Your task to perform on an android device: What's the weather going to be this weekend? Image 0: 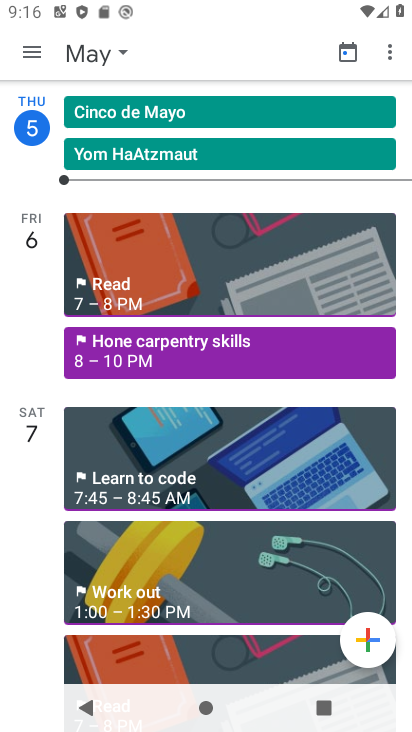
Step 0: press home button
Your task to perform on an android device: What's the weather going to be this weekend? Image 1: 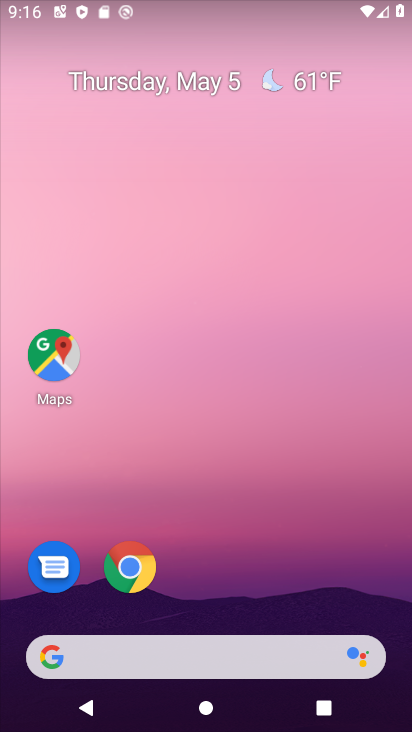
Step 1: click (235, 659)
Your task to perform on an android device: What's the weather going to be this weekend? Image 2: 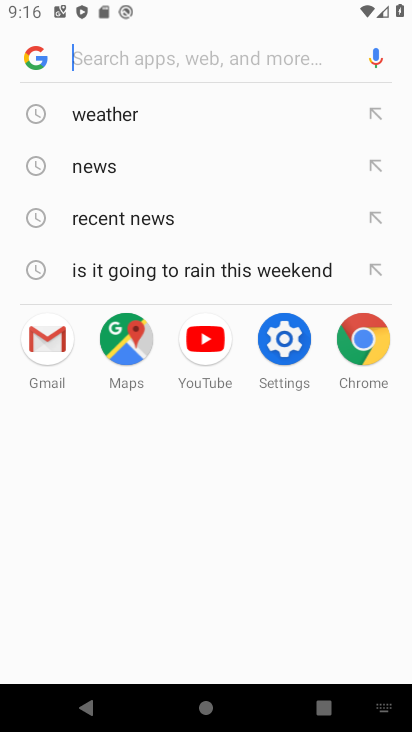
Step 2: click (127, 111)
Your task to perform on an android device: What's the weather going to be this weekend? Image 3: 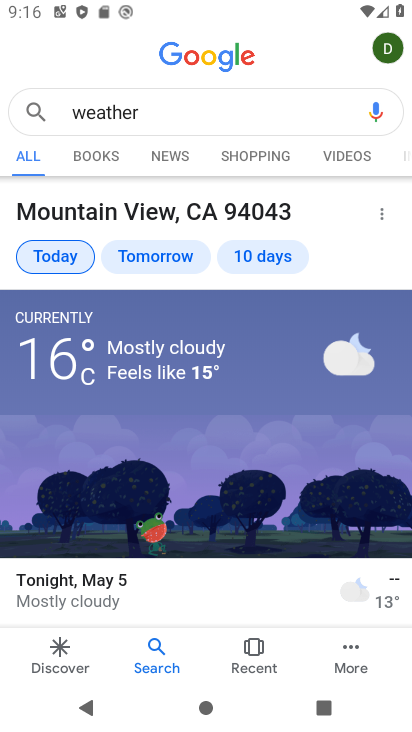
Step 3: click (157, 252)
Your task to perform on an android device: What's the weather going to be this weekend? Image 4: 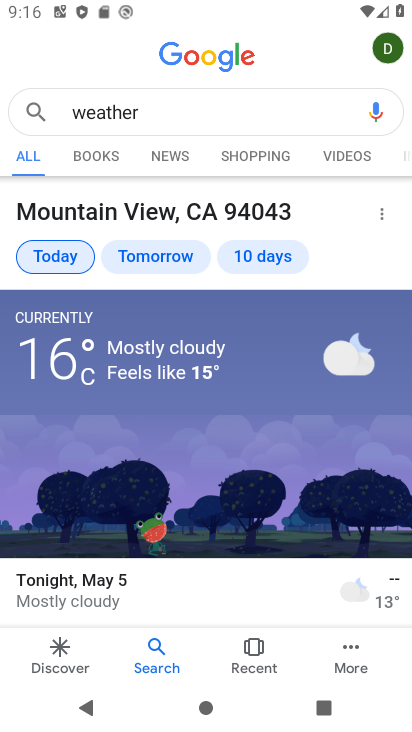
Step 4: click (157, 252)
Your task to perform on an android device: What's the weather going to be this weekend? Image 5: 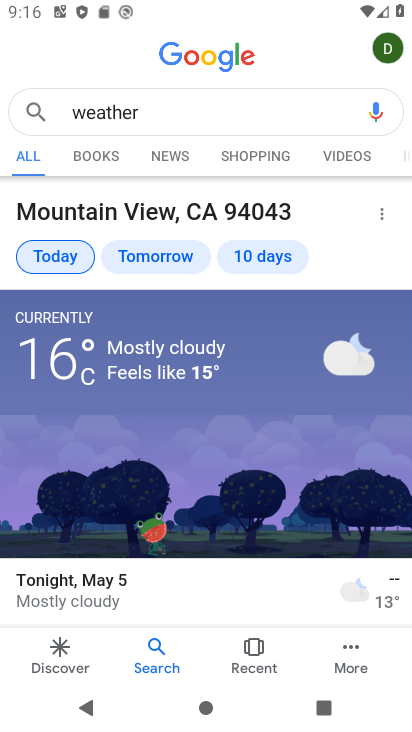
Step 5: click (157, 252)
Your task to perform on an android device: What's the weather going to be this weekend? Image 6: 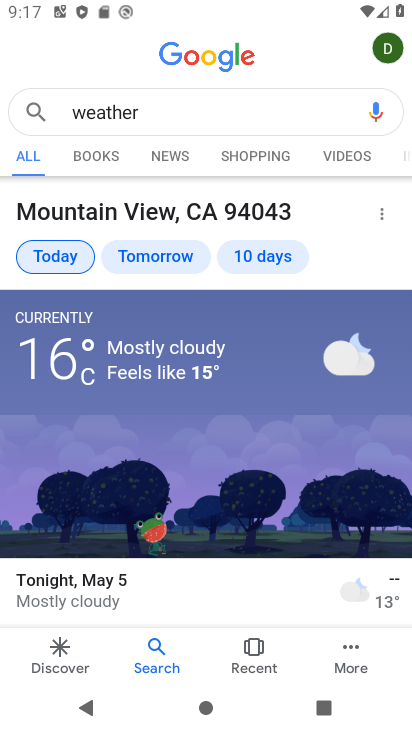
Step 6: drag from (329, 548) to (312, 378)
Your task to perform on an android device: What's the weather going to be this weekend? Image 7: 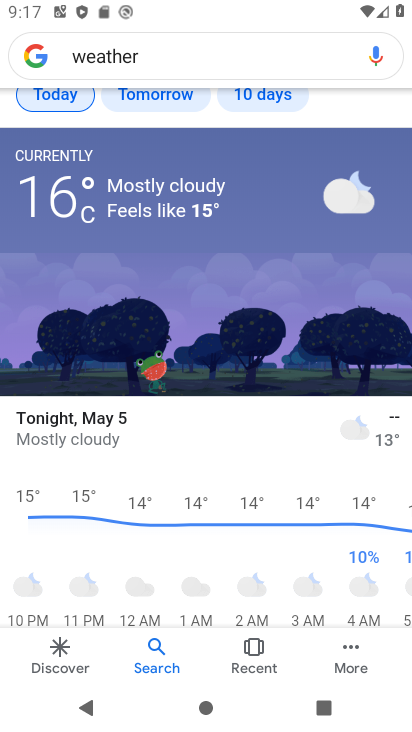
Step 7: click (166, 97)
Your task to perform on an android device: What's the weather going to be this weekend? Image 8: 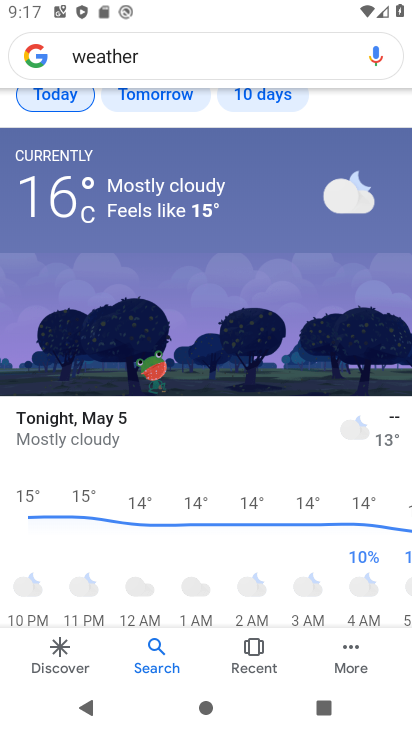
Step 8: click (166, 97)
Your task to perform on an android device: What's the weather going to be this weekend? Image 9: 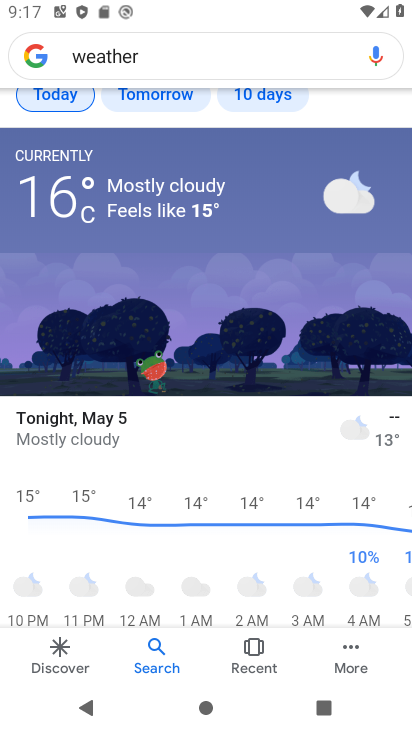
Step 9: drag from (304, 495) to (343, 248)
Your task to perform on an android device: What's the weather going to be this weekend? Image 10: 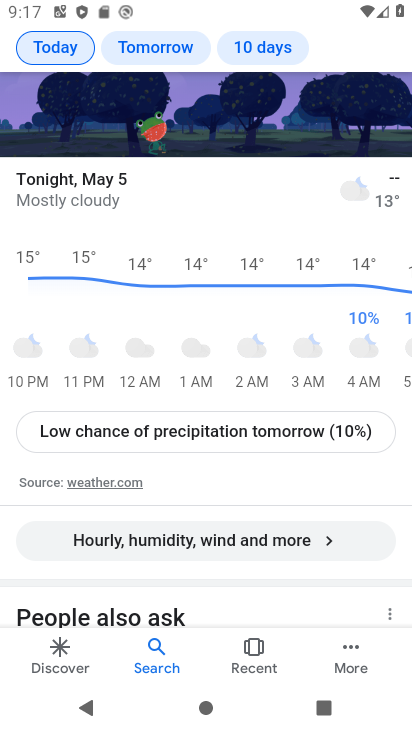
Step 10: click (302, 540)
Your task to perform on an android device: What's the weather going to be this weekend? Image 11: 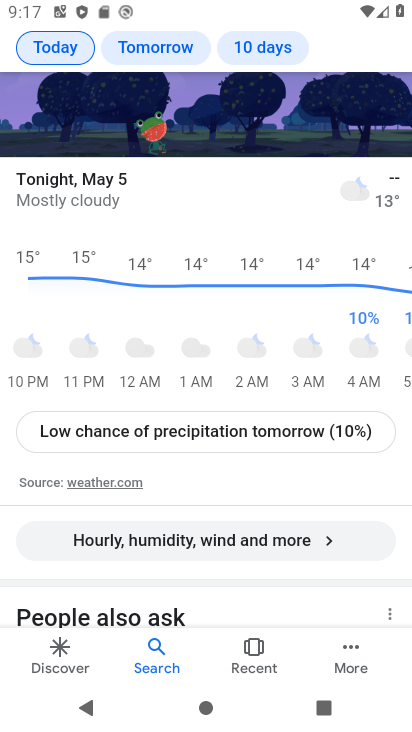
Step 11: click (303, 539)
Your task to perform on an android device: What's the weather going to be this weekend? Image 12: 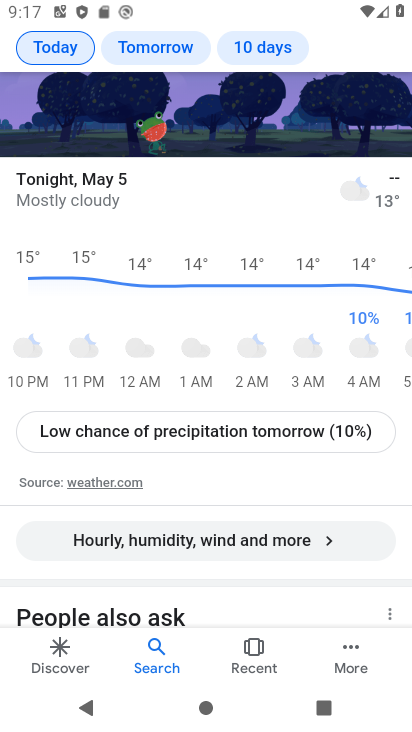
Step 12: click (303, 539)
Your task to perform on an android device: What's the weather going to be this weekend? Image 13: 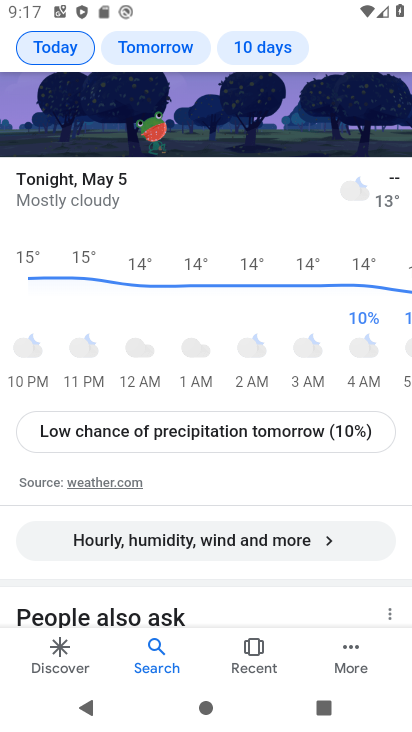
Step 13: click (304, 531)
Your task to perform on an android device: What's the weather going to be this weekend? Image 14: 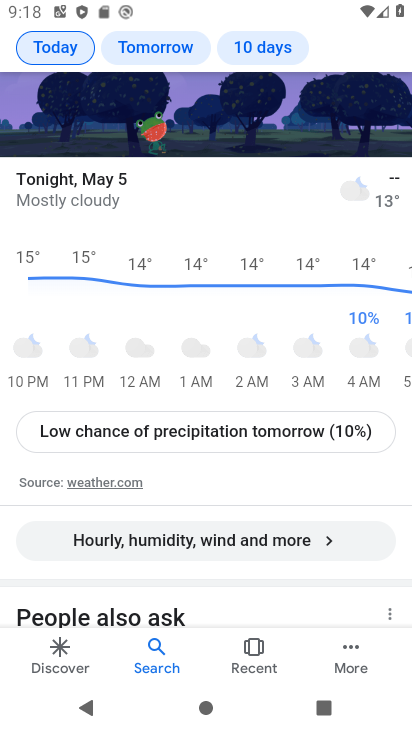
Step 14: drag from (254, 318) to (251, 543)
Your task to perform on an android device: What's the weather going to be this weekend? Image 15: 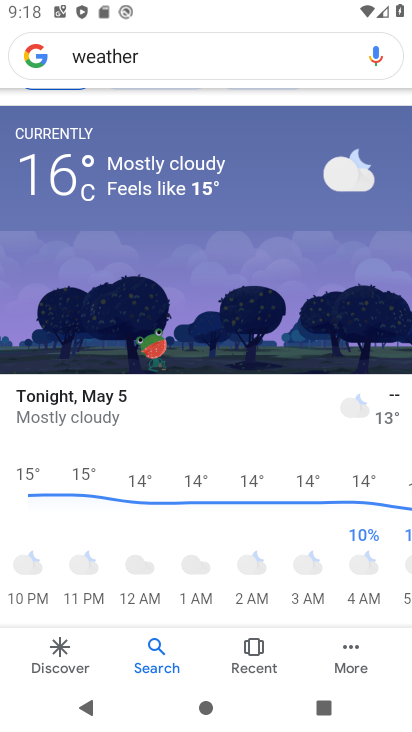
Step 15: drag from (201, 221) to (212, 486)
Your task to perform on an android device: What's the weather going to be this weekend? Image 16: 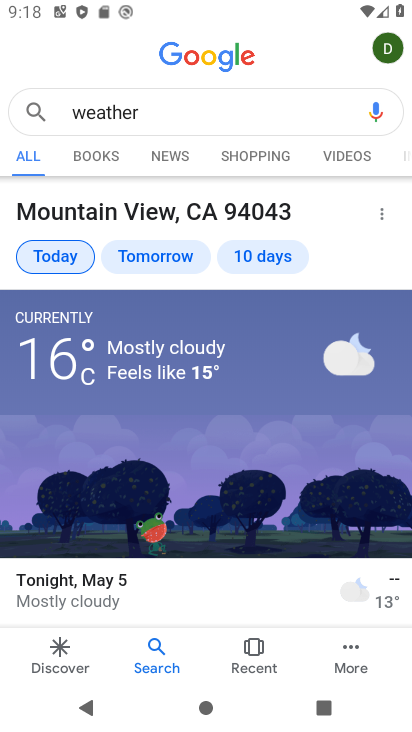
Step 16: click (243, 254)
Your task to perform on an android device: What's the weather going to be this weekend? Image 17: 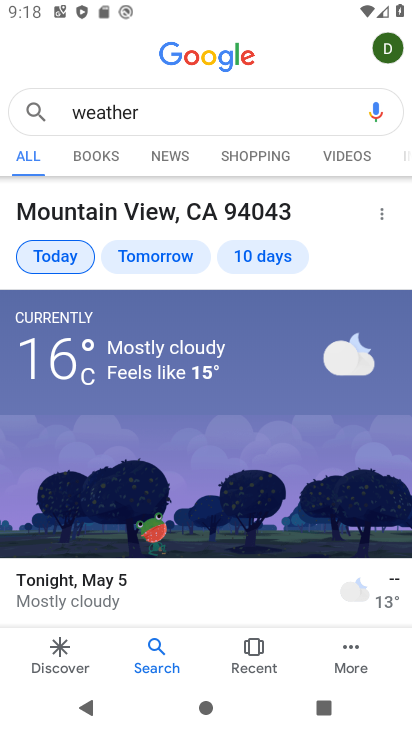
Step 17: click (161, 254)
Your task to perform on an android device: What's the weather going to be this weekend? Image 18: 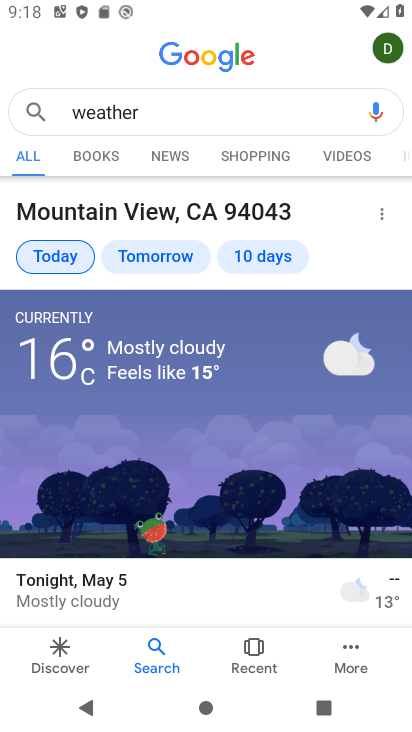
Step 18: click (161, 254)
Your task to perform on an android device: What's the weather going to be this weekend? Image 19: 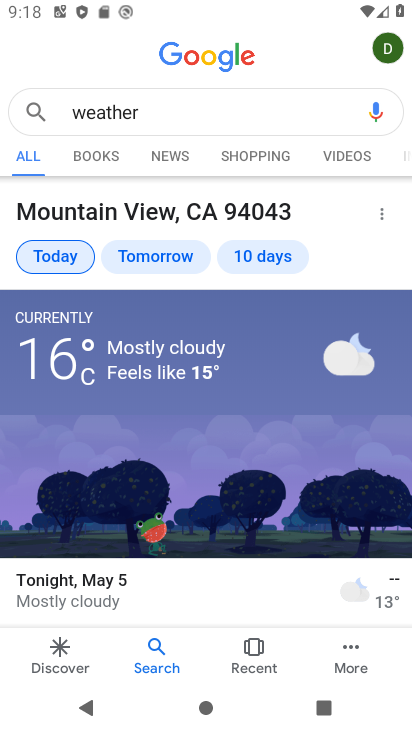
Step 19: click (161, 254)
Your task to perform on an android device: What's the weather going to be this weekend? Image 20: 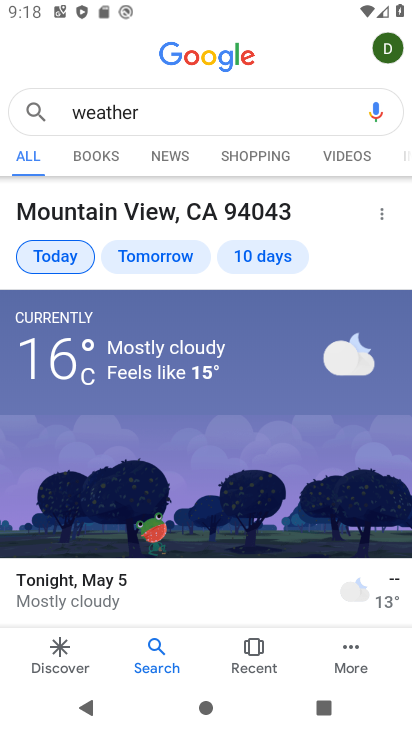
Step 20: click (161, 254)
Your task to perform on an android device: What's the weather going to be this weekend? Image 21: 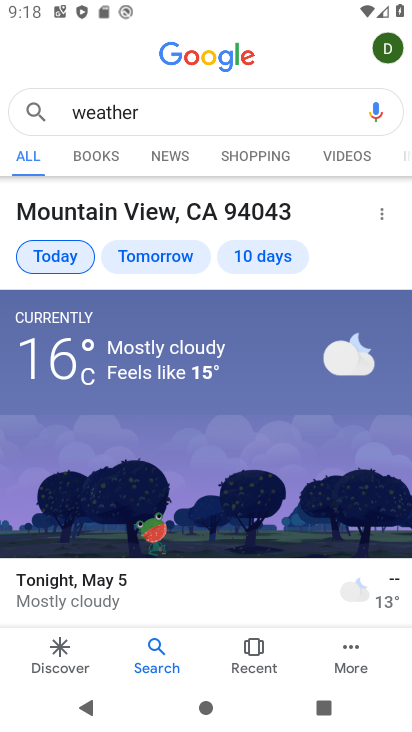
Step 21: click (161, 254)
Your task to perform on an android device: What's the weather going to be this weekend? Image 22: 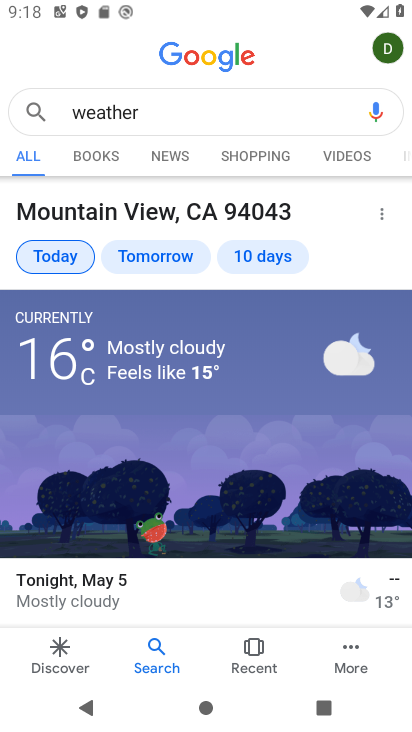
Step 22: click (161, 254)
Your task to perform on an android device: What's the weather going to be this weekend? Image 23: 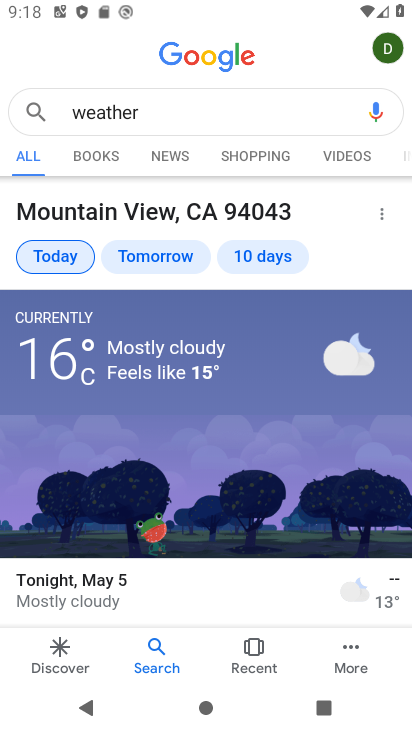
Step 23: click (161, 254)
Your task to perform on an android device: What's the weather going to be this weekend? Image 24: 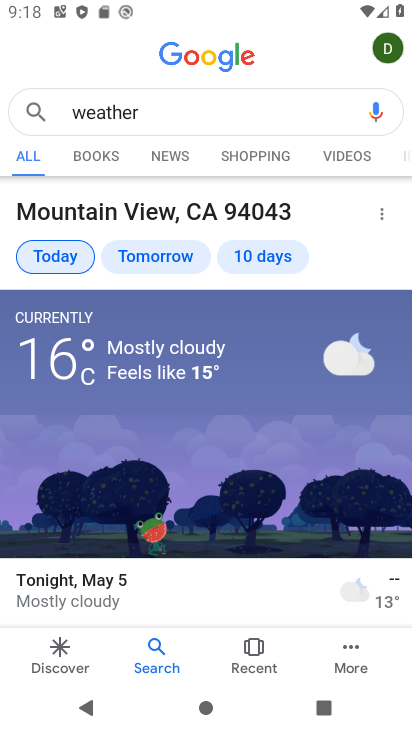
Step 24: click (161, 254)
Your task to perform on an android device: What's the weather going to be this weekend? Image 25: 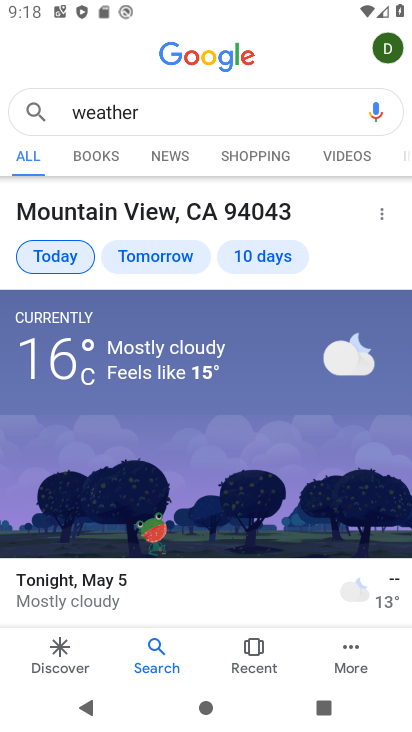
Step 25: click (161, 254)
Your task to perform on an android device: What's the weather going to be this weekend? Image 26: 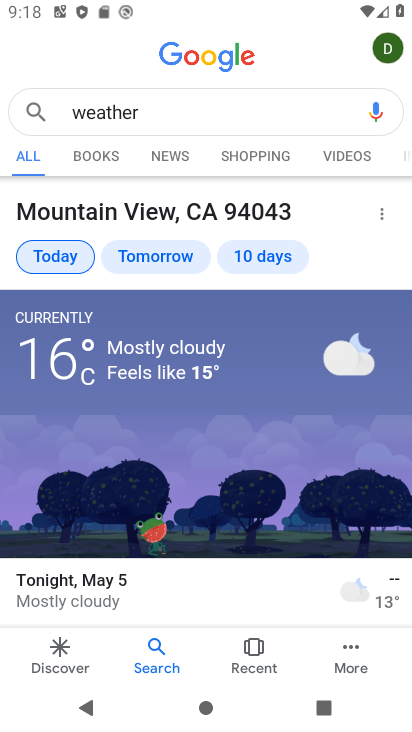
Step 26: click (161, 254)
Your task to perform on an android device: What's the weather going to be this weekend? Image 27: 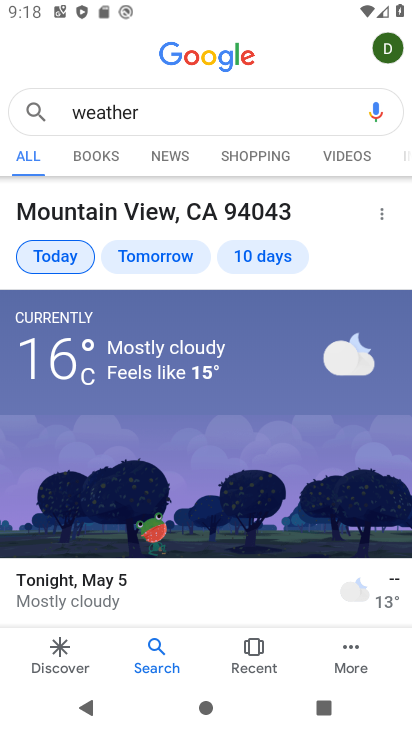
Step 27: click (161, 254)
Your task to perform on an android device: What's the weather going to be this weekend? Image 28: 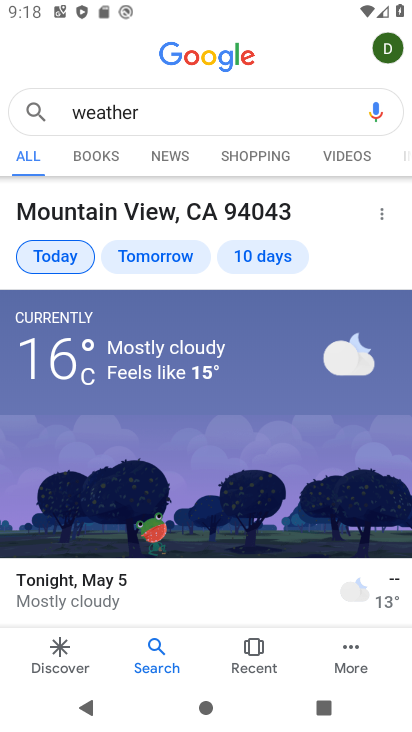
Step 28: click (161, 254)
Your task to perform on an android device: What's the weather going to be this weekend? Image 29: 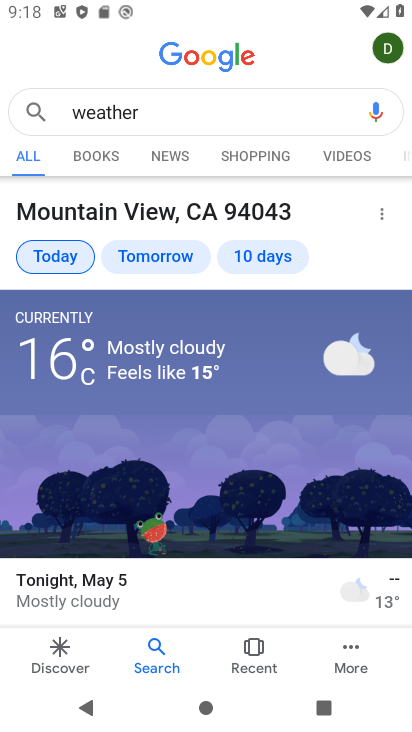
Step 29: click (161, 254)
Your task to perform on an android device: What's the weather going to be this weekend? Image 30: 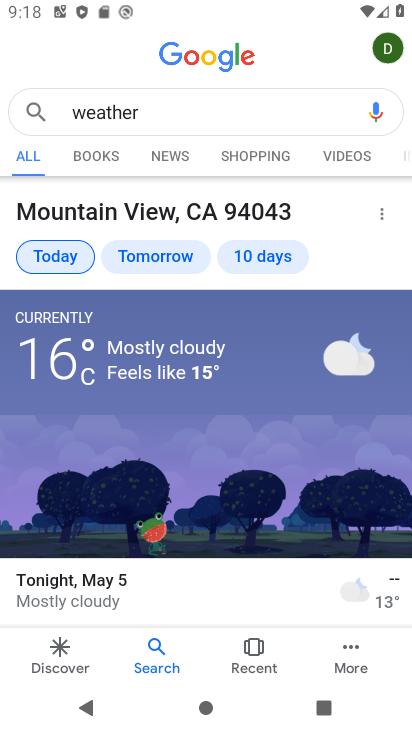
Step 30: click (161, 254)
Your task to perform on an android device: What's the weather going to be this weekend? Image 31: 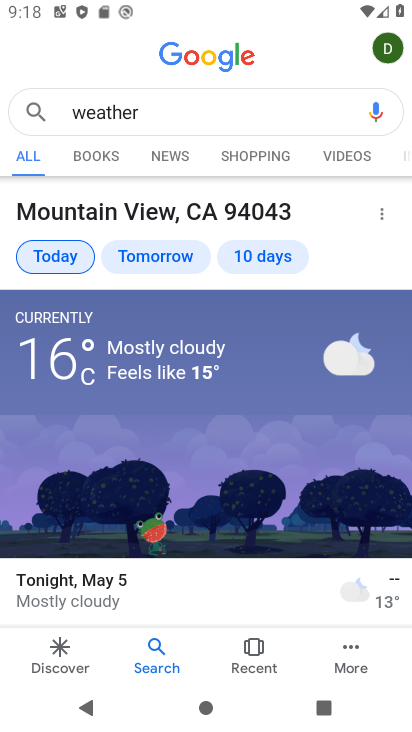
Step 31: task complete